Your task to perform on an android device: turn off airplane mode Image 0: 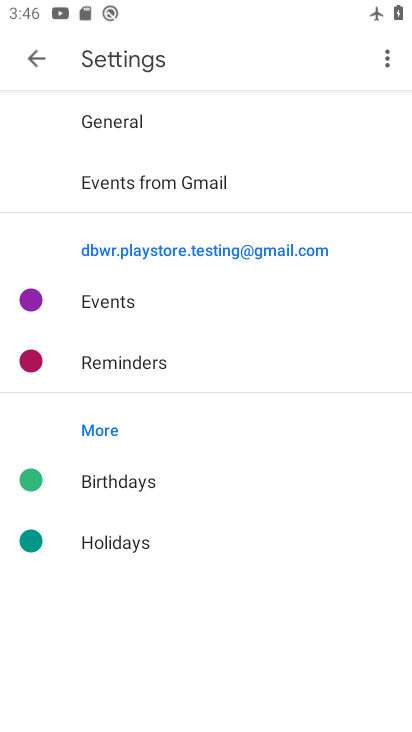
Step 0: drag from (172, 146) to (190, 593)
Your task to perform on an android device: turn off airplane mode Image 1: 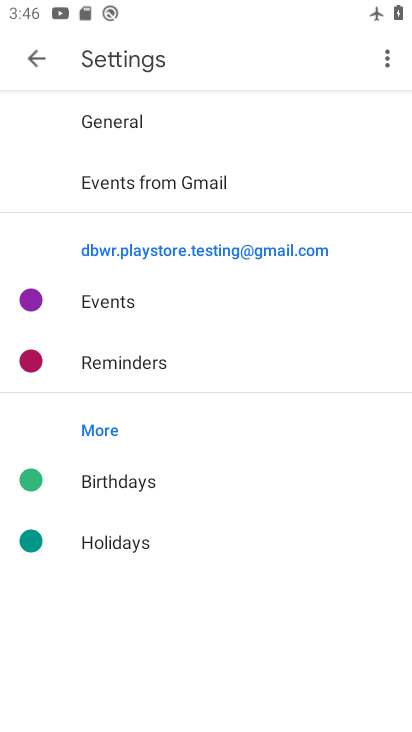
Step 1: click (35, 63)
Your task to perform on an android device: turn off airplane mode Image 2: 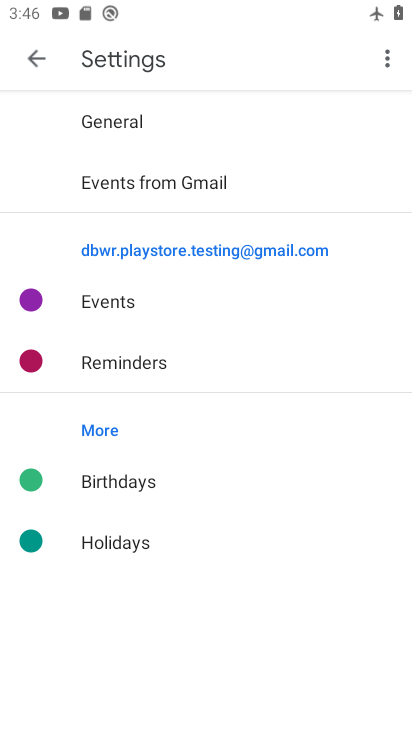
Step 2: press home button
Your task to perform on an android device: turn off airplane mode Image 3: 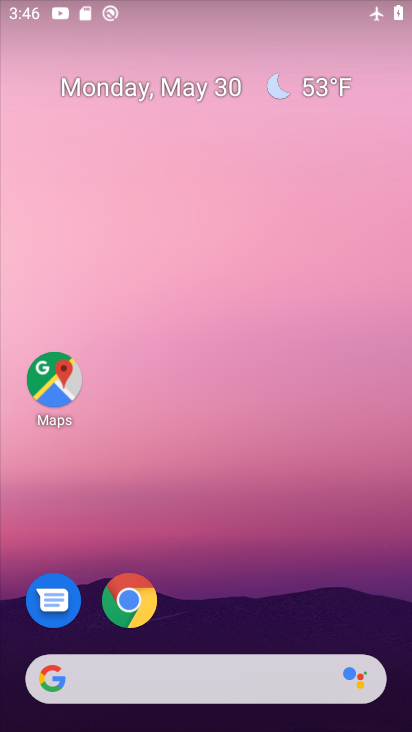
Step 3: drag from (304, 513) to (385, 71)
Your task to perform on an android device: turn off airplane mode Image 4: 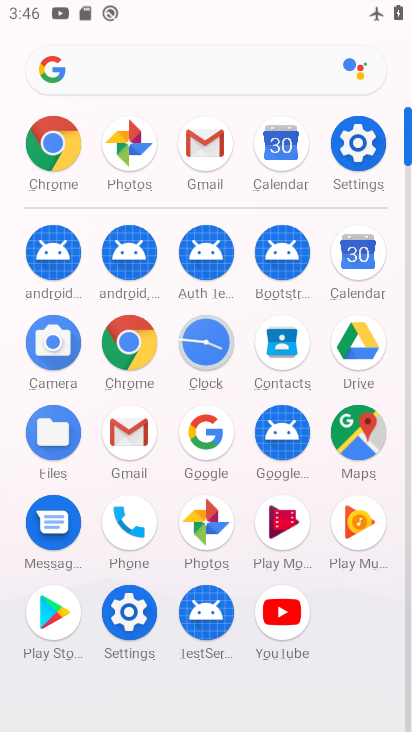
Step 4: click (347, 134)
Your task to perform on an android device: turn off airplane mode Image 5: 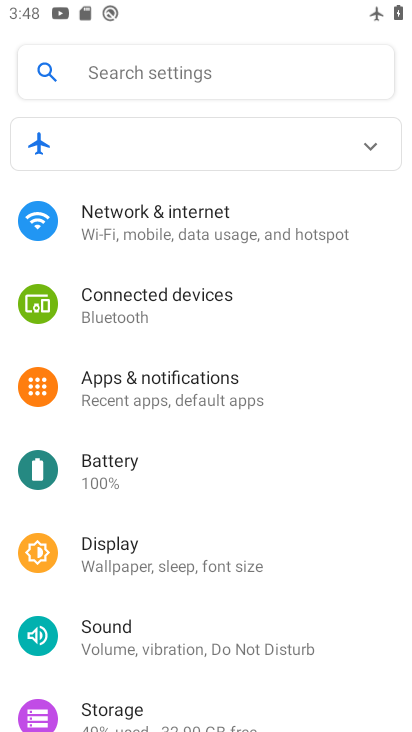
Step 5: click (175, 250)
Your task to perform on an android device: turn off airplane mode Image 6: 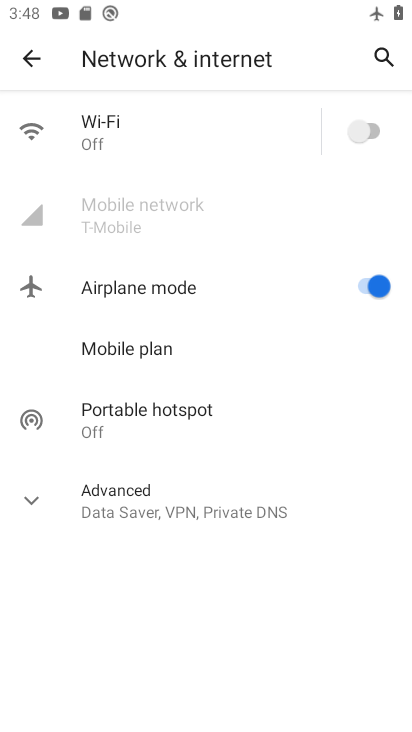
Step 6: click (367, 285)
Your task to perform on an android device: turn off airplane mode Image 7: 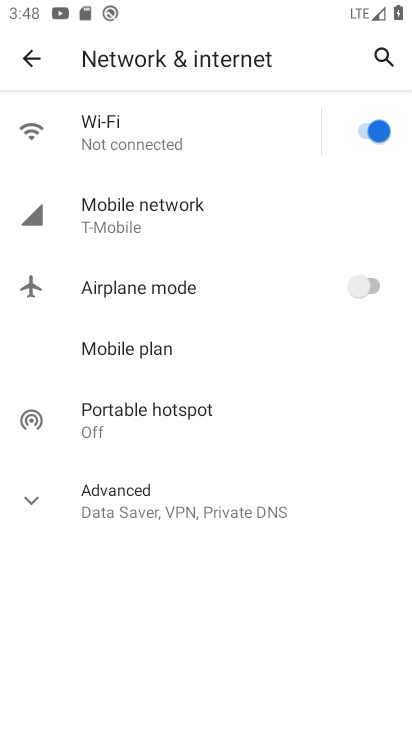
Step 7: task complete